Your task to perform on an android device: Open Amazon Image 0: 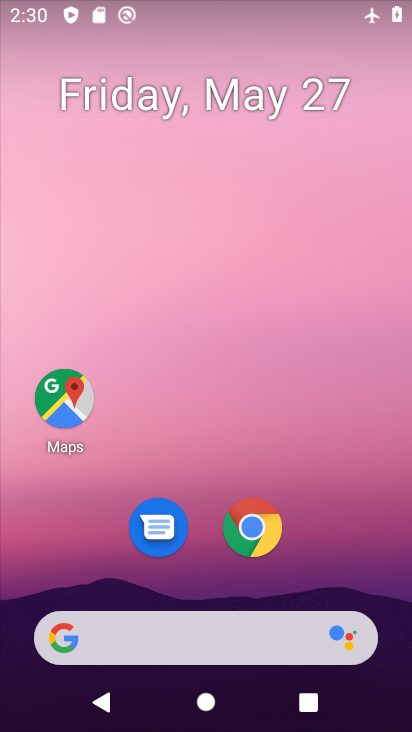
Step 0: click (274, 530)
Your task to perform on an android device: Open Amazon Image 1: 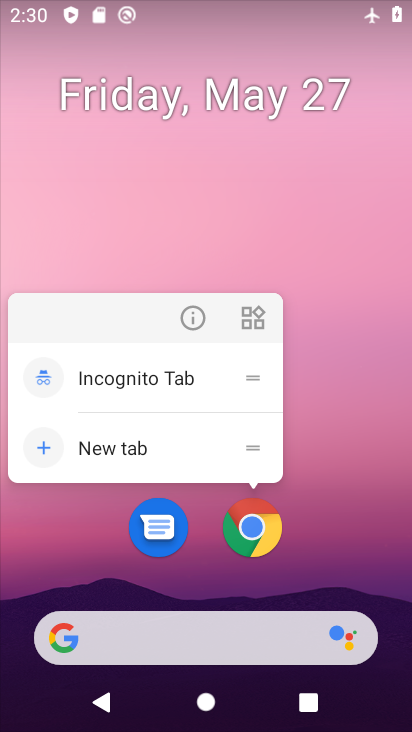
Step 1: click (274, 530)
Your task to perform on an android device: Open Amazon Image 2: 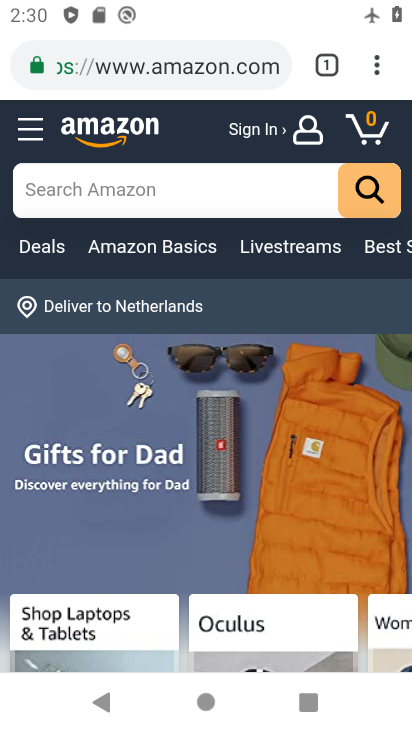
Step 2: task complete